Your task to perform on an android device: Is it going to rain today? Image 0: 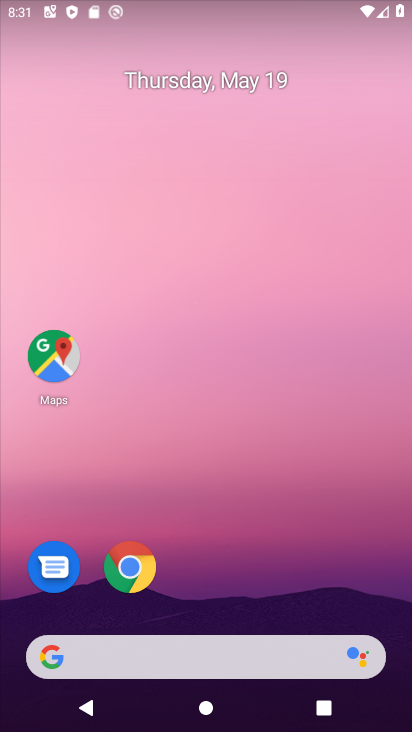
Step 0: click (204, 654)
Your task to perform on an android device: Is it going to rain today? Image 1: 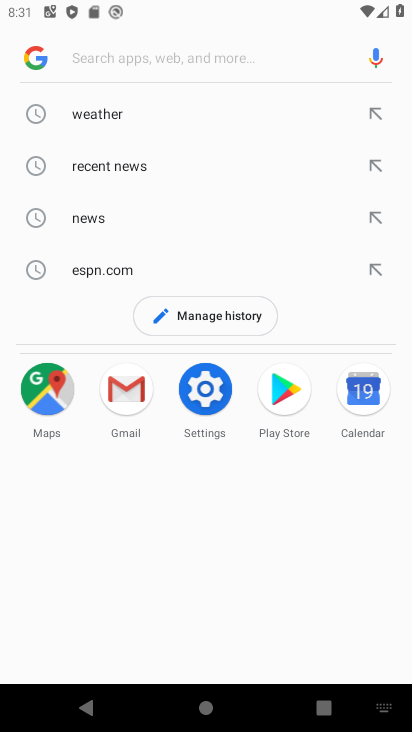
Step 1: click (108, 118)
Your task to perform on an android device: Is it going to rain today? Image 2: 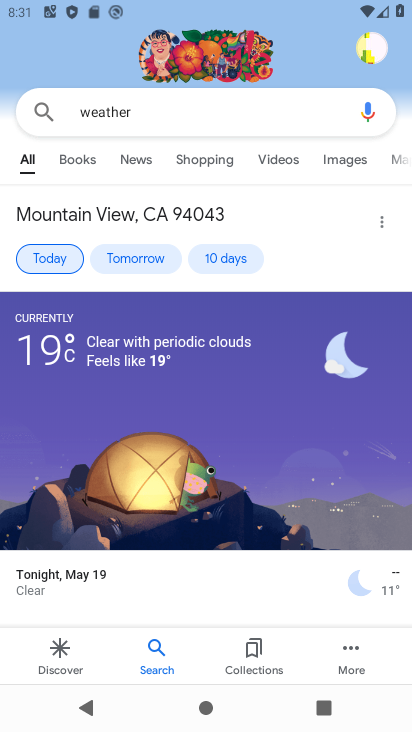
Step 2: task complete